Your task to perform on an android device: Open Chrome and go to settings Image 0: 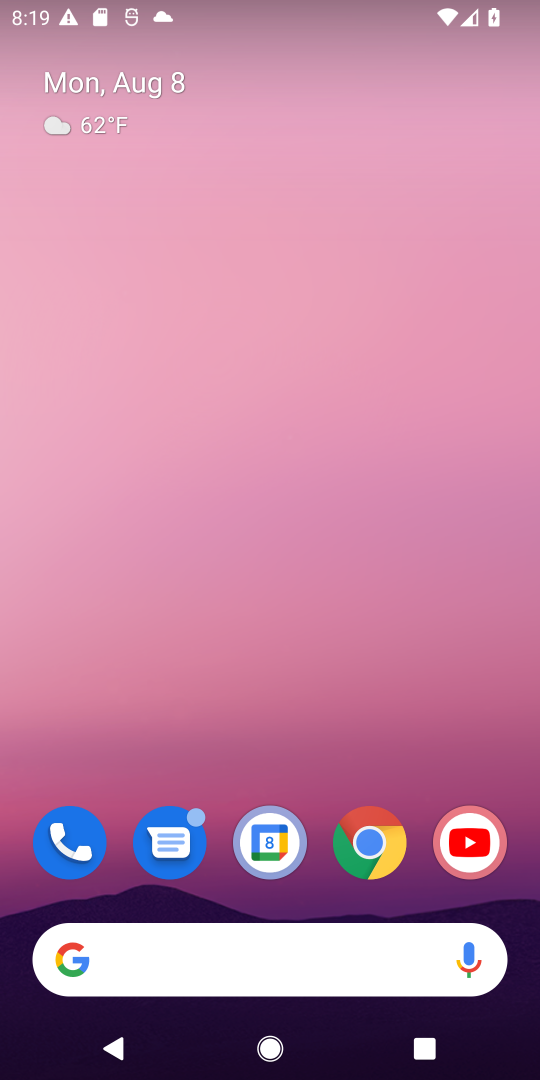
Step 0: click (380, 830)
Your task to perform on an android device: Open Chrome and go to settings Image 1: 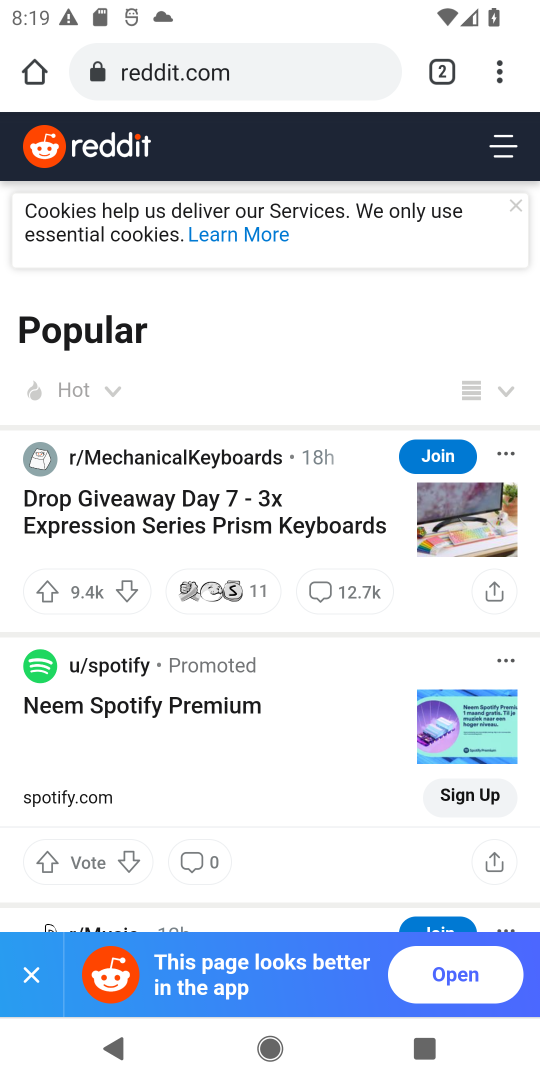
Step 1: click (508, 71)
Your task to perform on an android device: Open Chrome and go to settings Image 2: 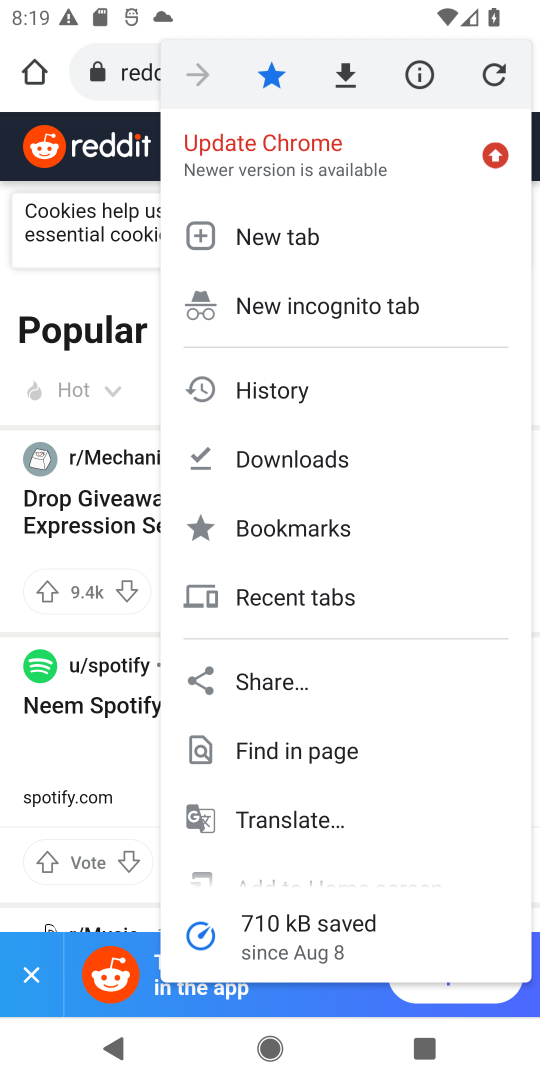
Step 2: drag from (356, 774) to (379, 250)
Your task to perform on an android device: Open Chrome and go to settings Image 3: 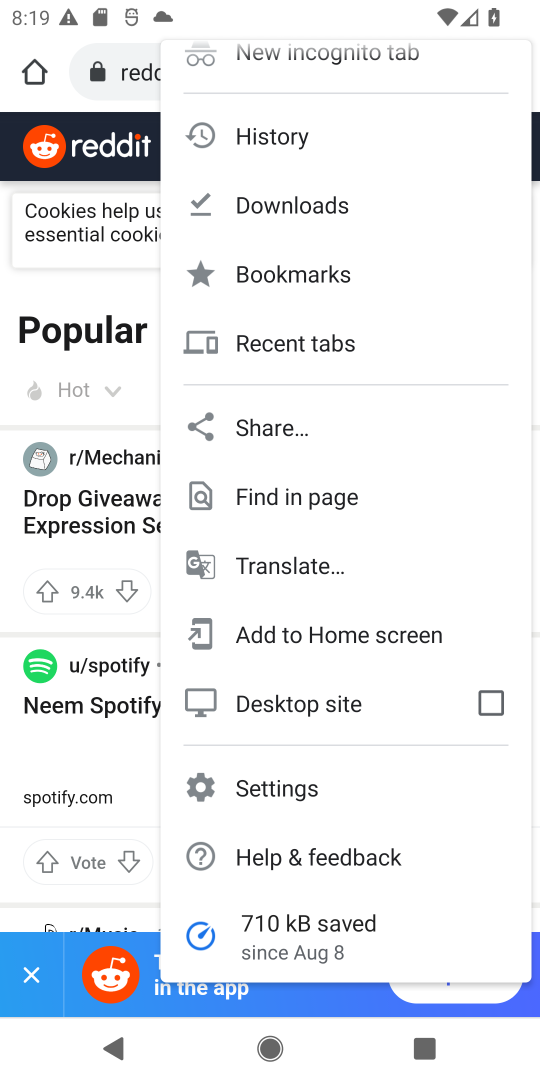
Step 3: click (300, 784)
Your task to perform on an android device: Open Chrome and go to settings Image 4: 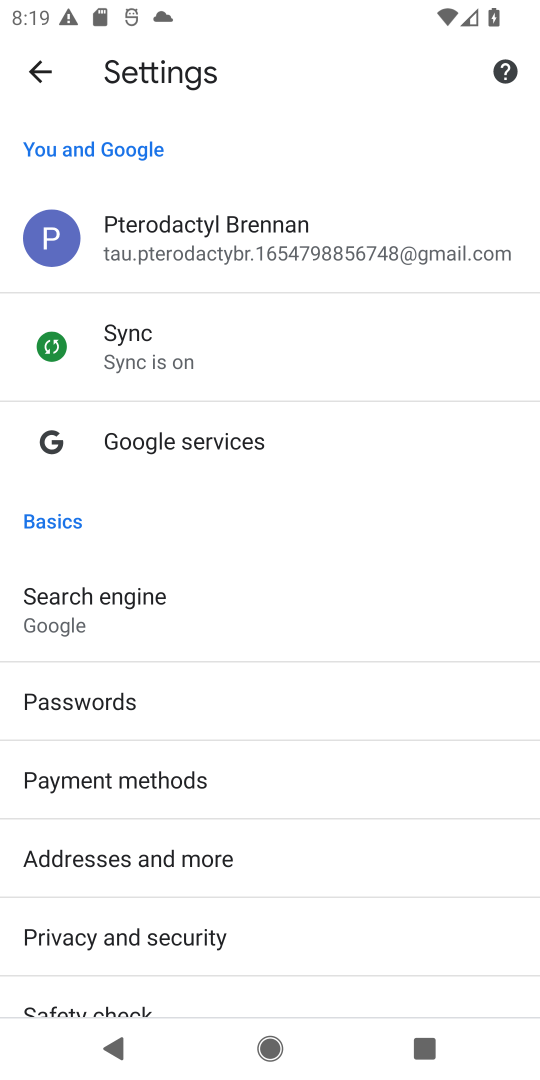
Step 4: task complete